Your task to perform on an android device: open app "Etsy: Buy & Sell Unique Items" (install if not already installed) Image 0: 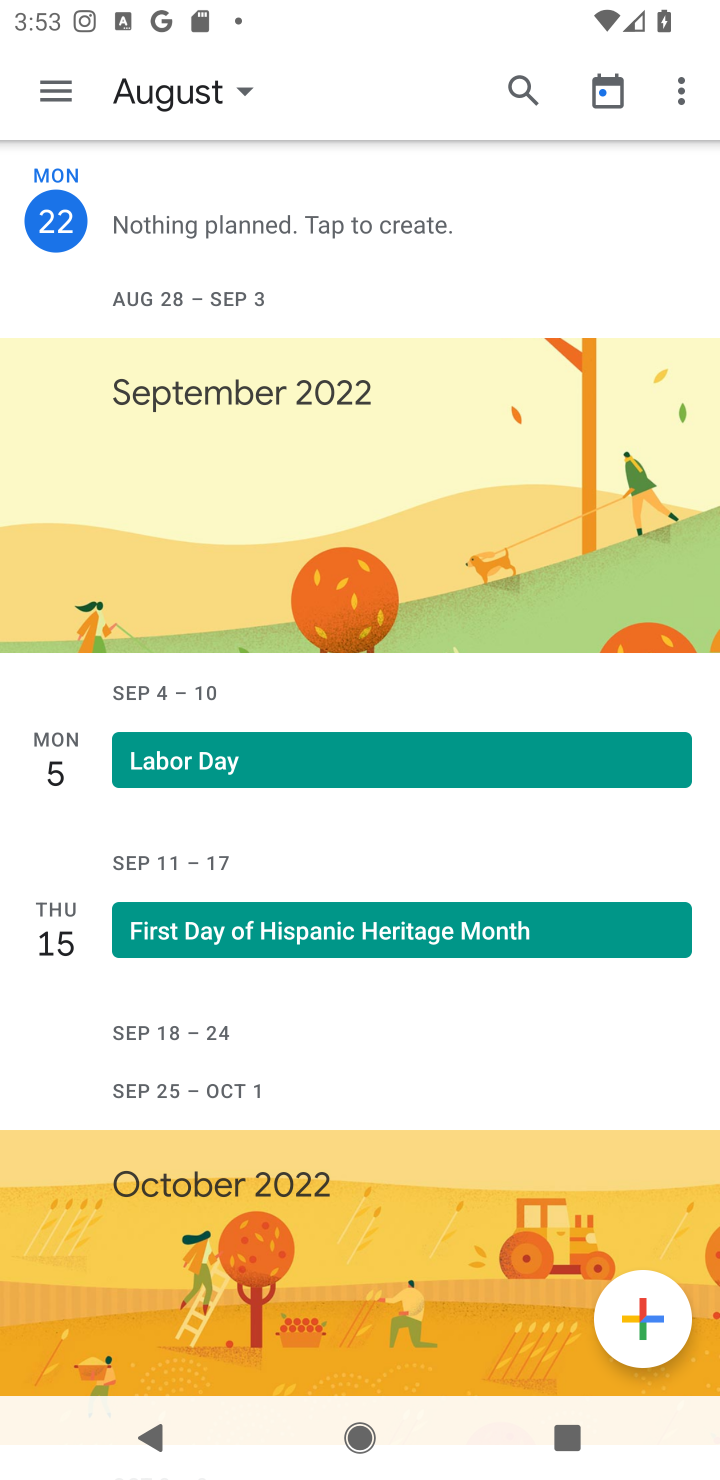
Step 0: press home button
Your task to perform on an android device: open app "Etsy: Buy & Sell Unique Items" (install if not already installed) Image 1: 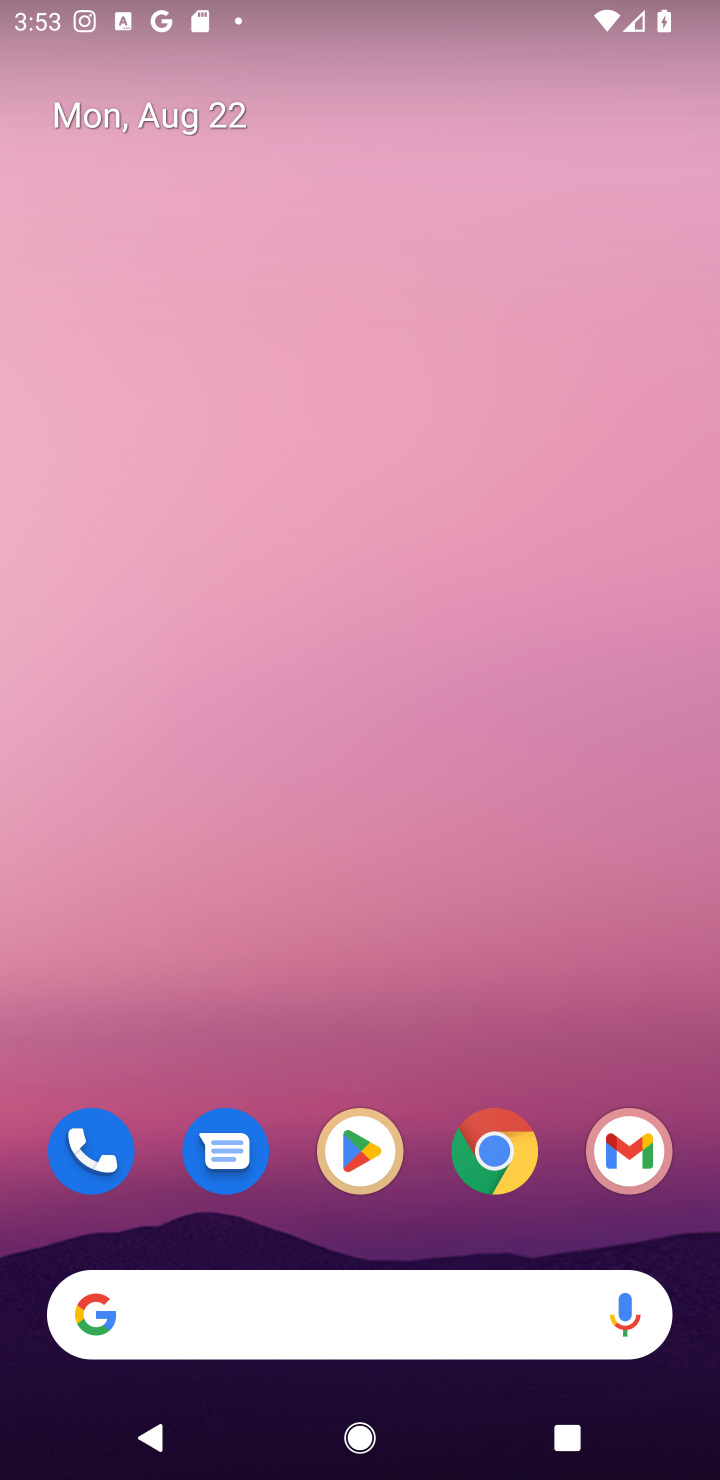
Step 1: click (372, 1158)
Your task to perform on an android device: open app "Etsy: Buy & Sell Unique Items" (install if not already installed) Image 2: 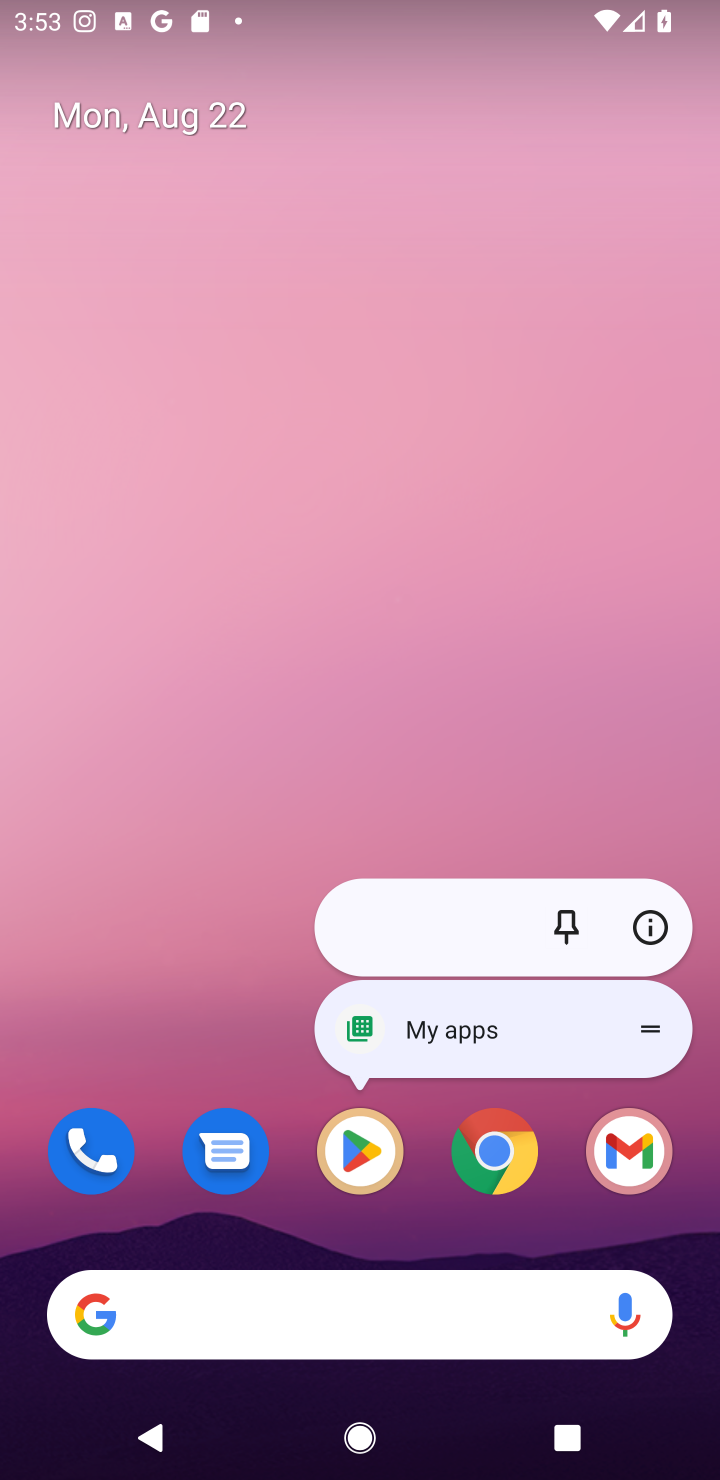
Step 2: click (372, 1160)
Your task to perform on an android device: open app "Etsy: Buy & Sell Unique Items" (install if not already installed) Image 3: 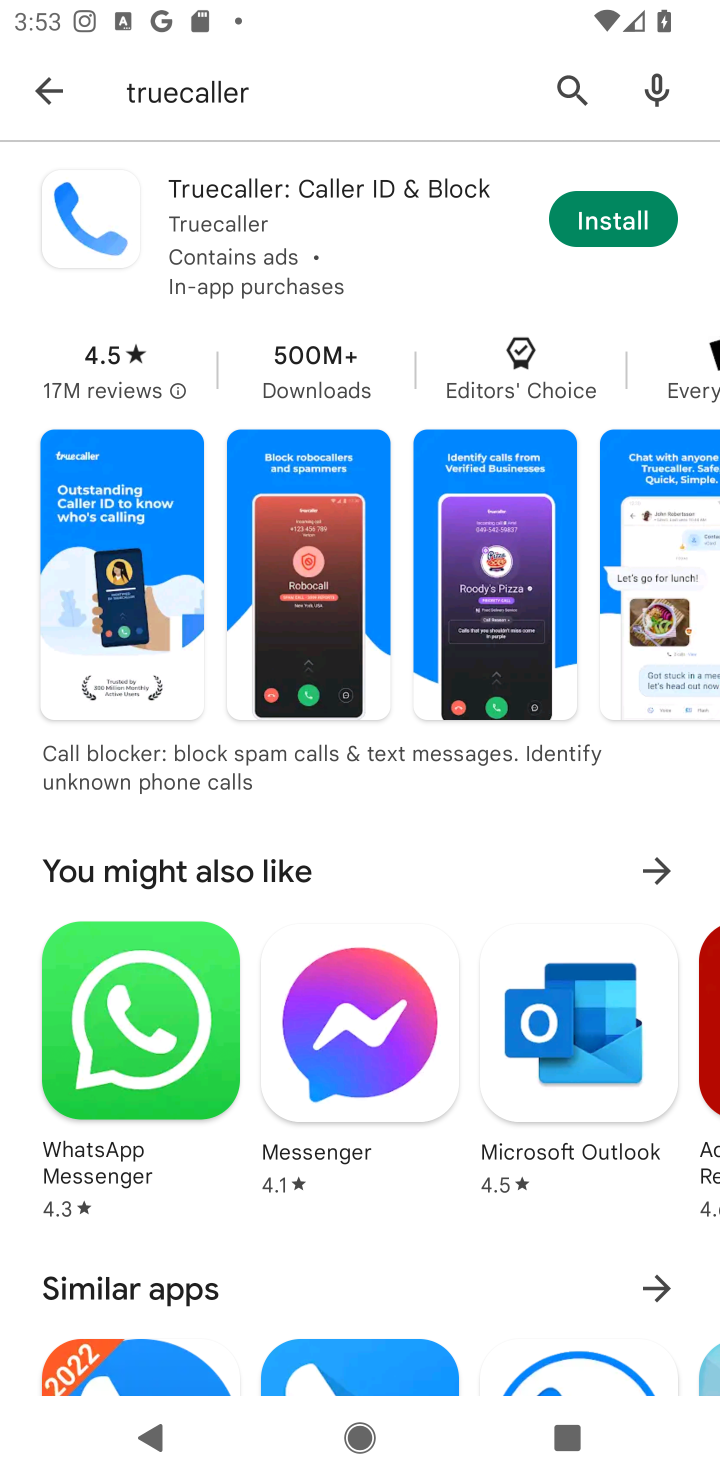
Step 3: click (568, 88)
Your task to perform on an android device: open app "Etsy: Buy & Sell Unique Items" (install if not already installed) Image 4: 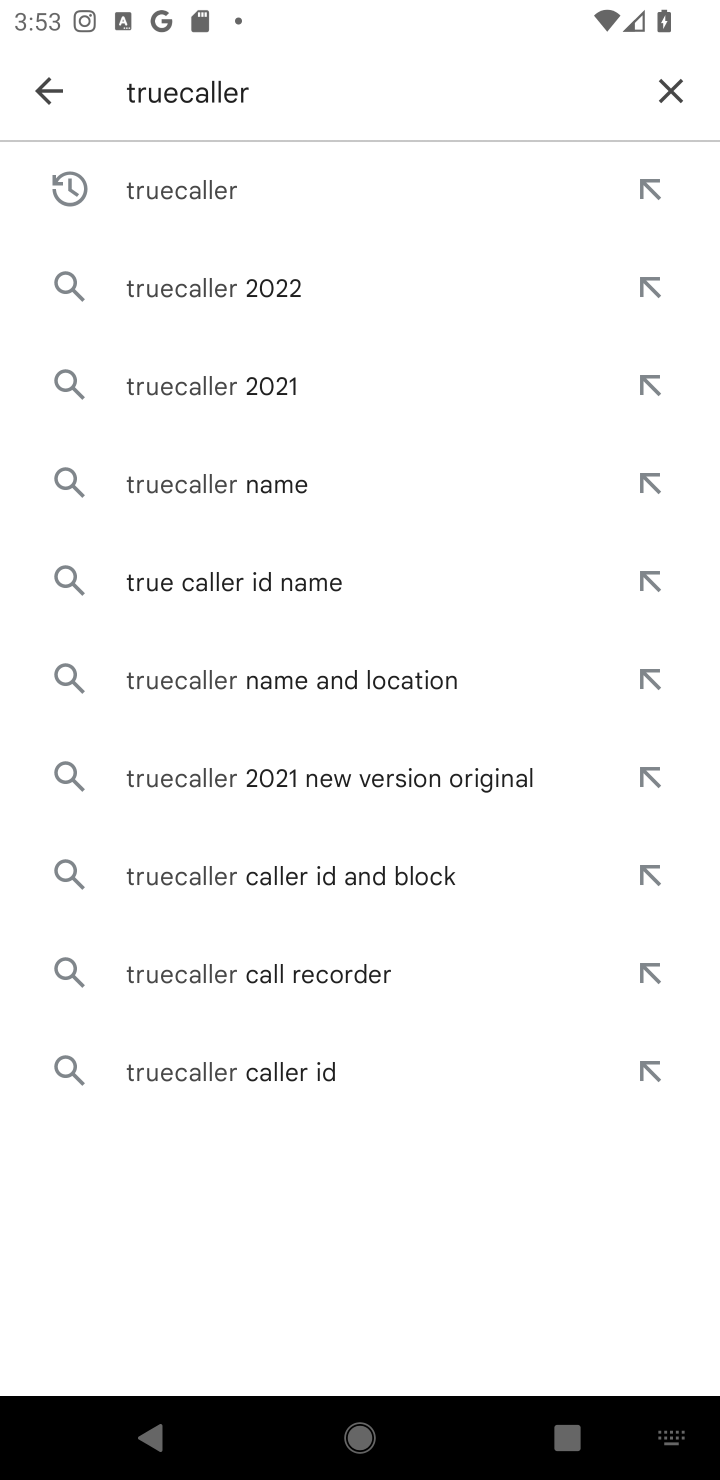
Step 4: click (670, 89)
Your task to perform on an android device: open app "Etsy: Buy & Sell Unique Items" (install if not already installed) Image 5: 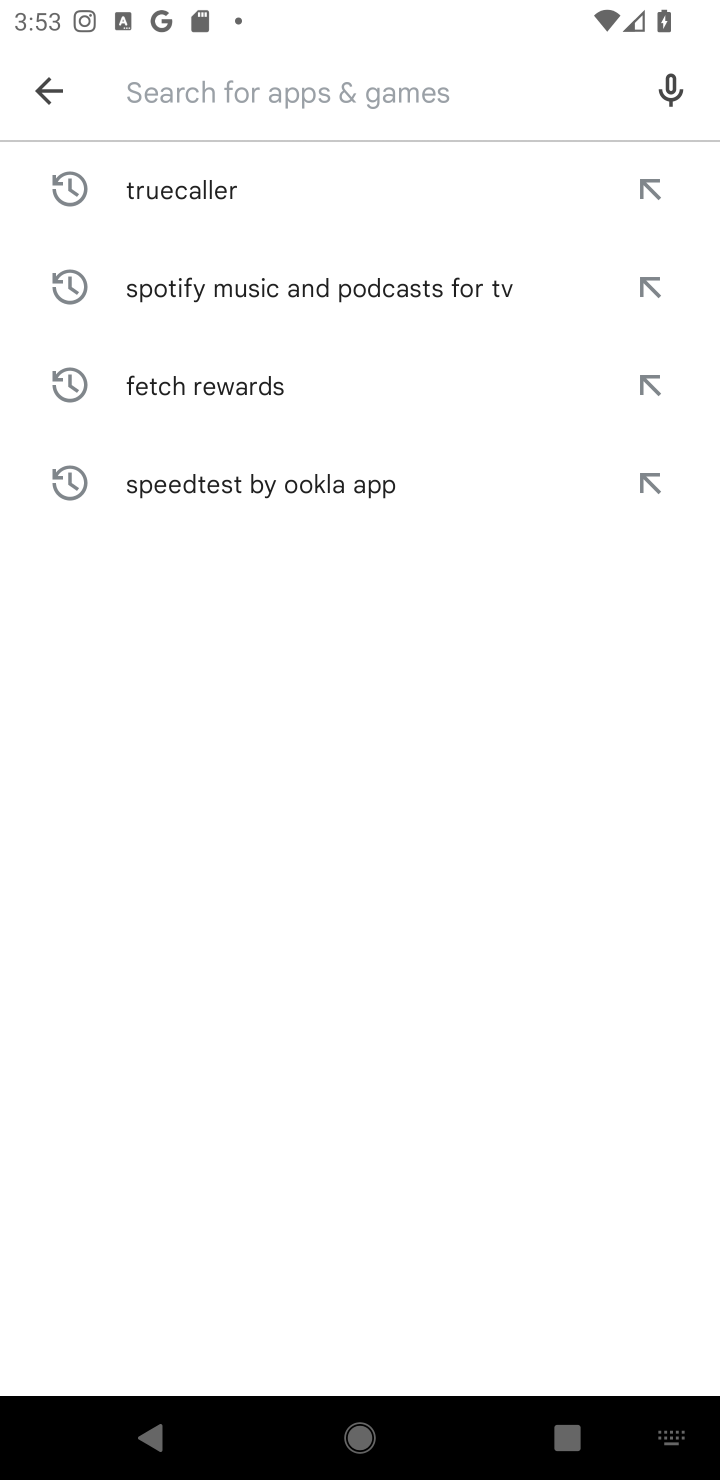
Step 5: type "Etsy: Buy & Sell Unique Items"
Your task to perform on an android device: open app "Etsy: Buy & Sell Unique Items" (install if not already installed) Image 6: 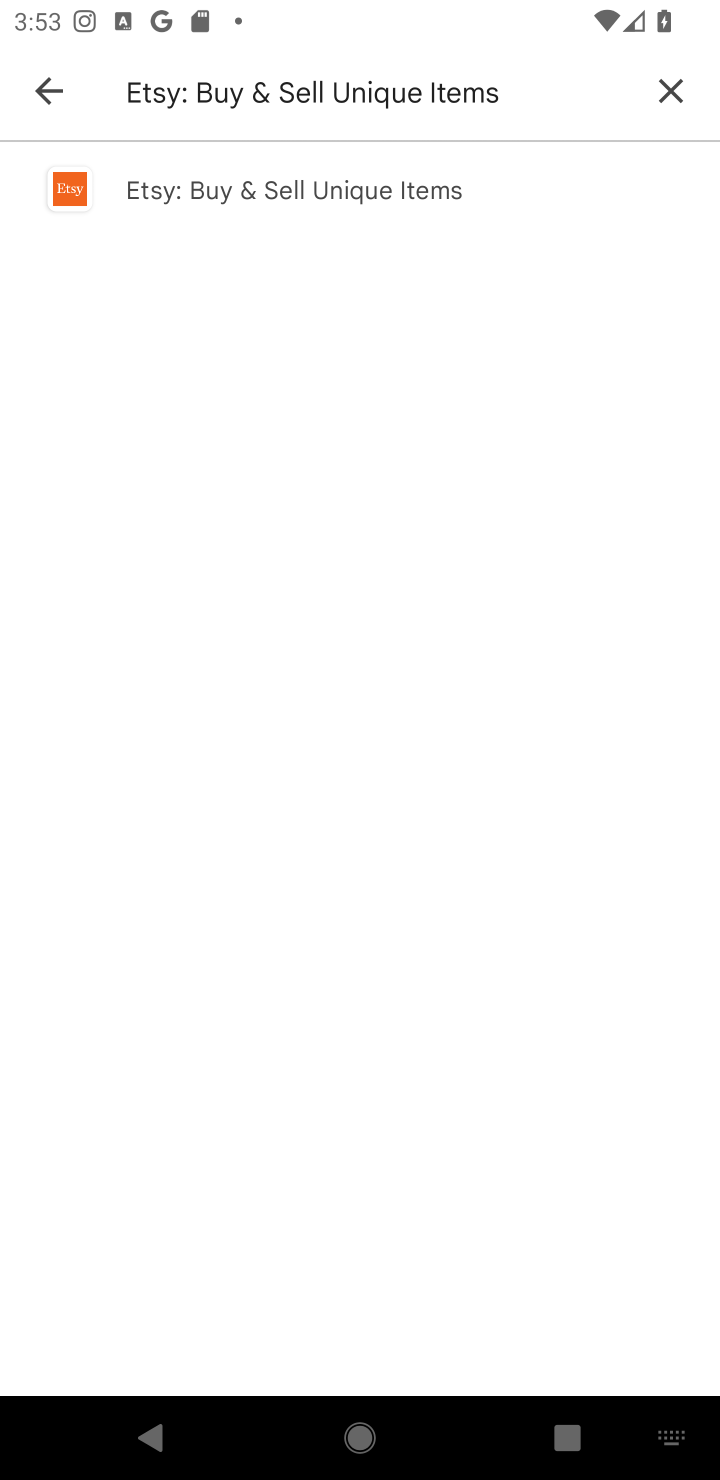
Step 6: click (342, 174)
Your task to perform on an android device: open app "Etsy: Buy & Sell Unique Items" (install if not already installed) Image 7: 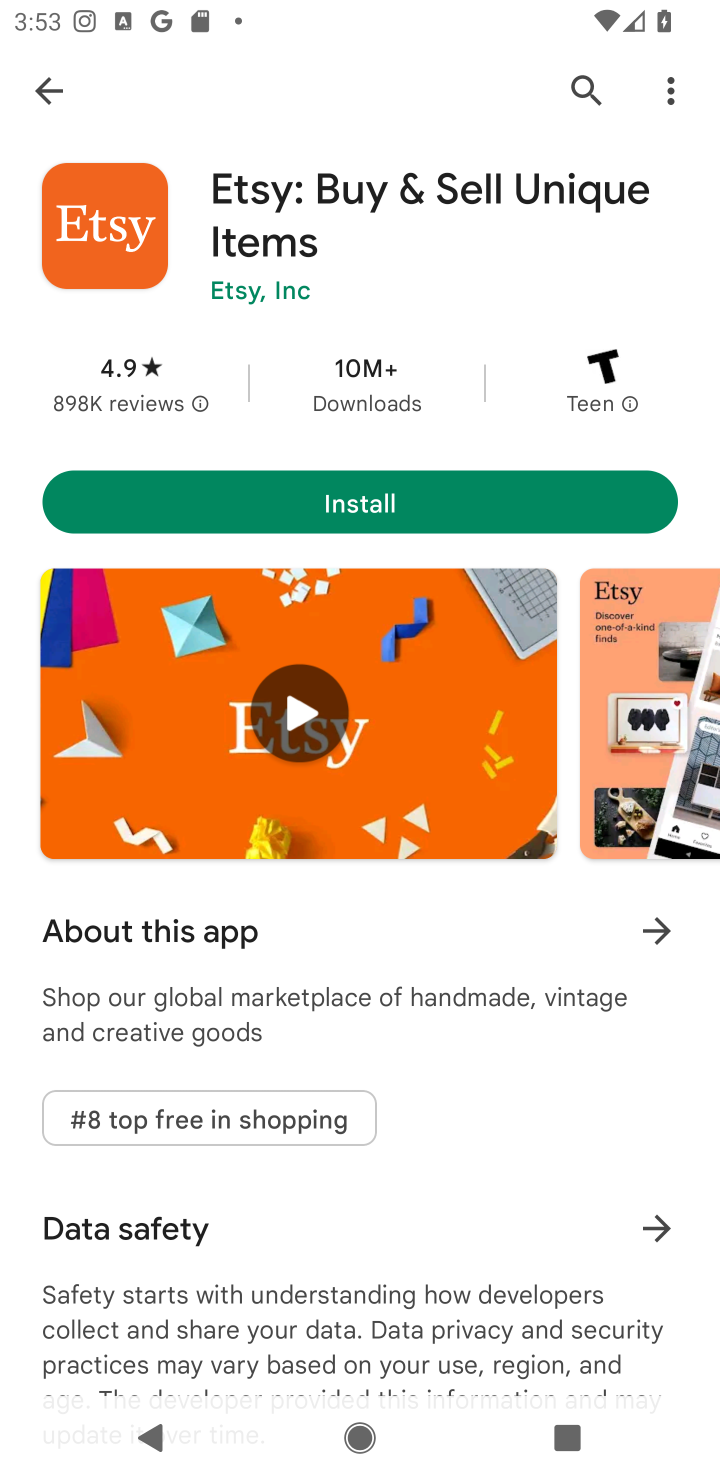
Step 7: click (370, 520)
Your task to perform on an android device: open app "Etsy: Buy & Sell Unique Items" (install if not already installed) Image 8: 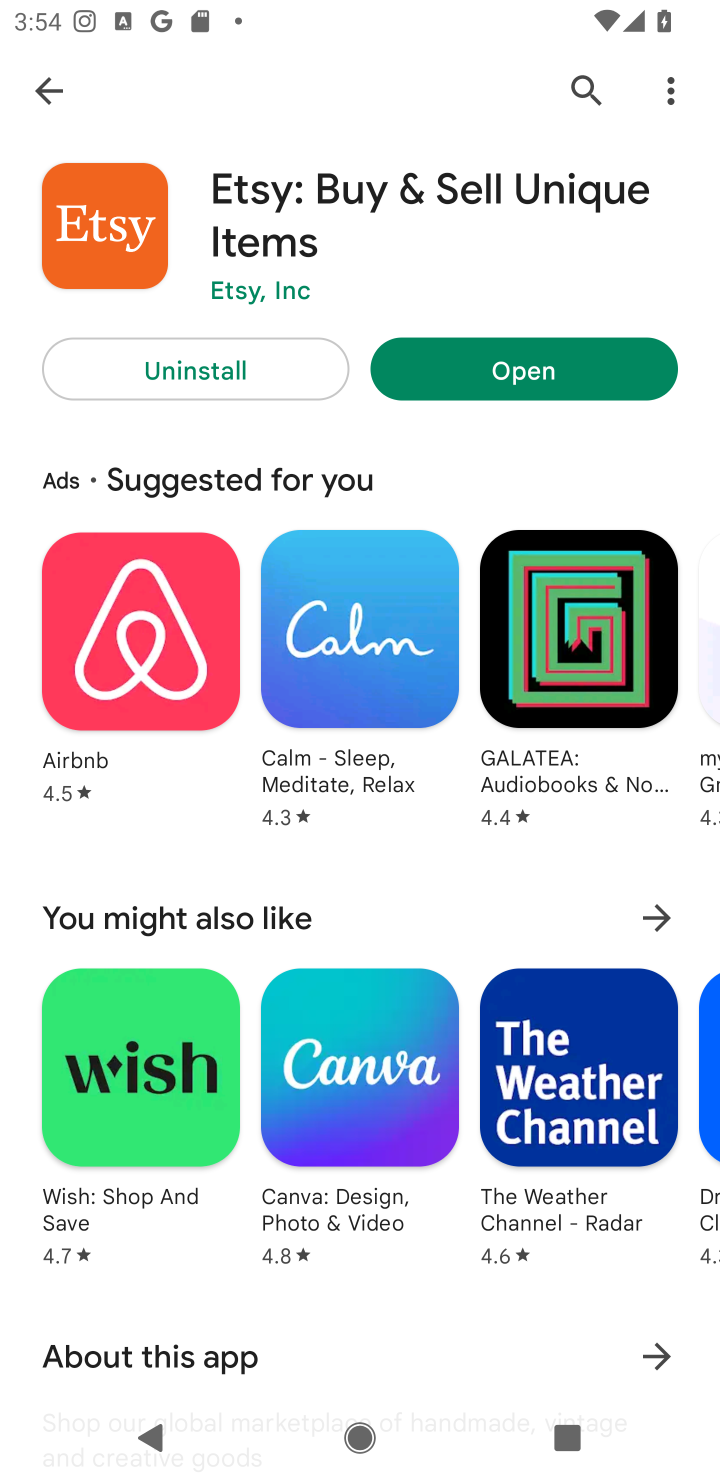
Step 8: click (540, 370)
Your task to perform on an android device: open app "Etsy: Buy & Sell Unique Items" (install if not already installed) Image 9: 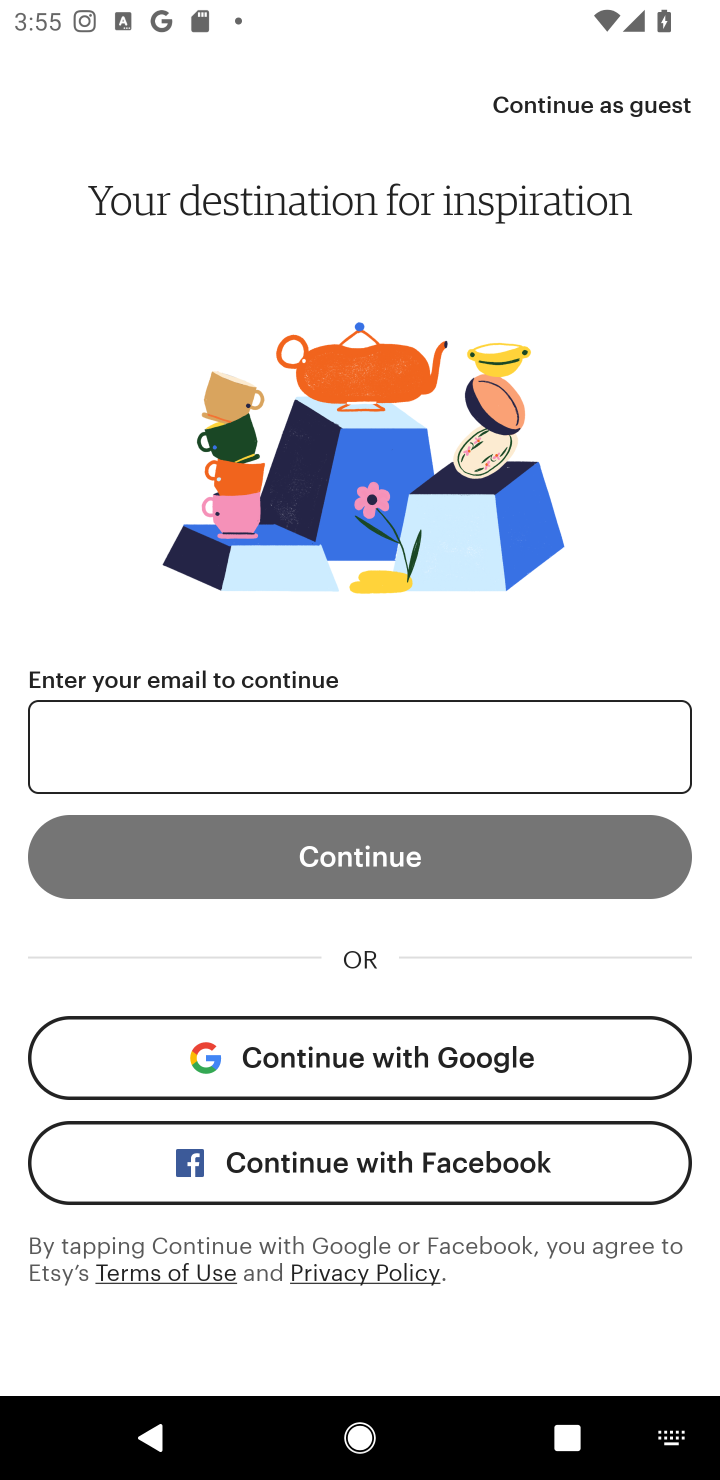
Step 9: task complete